Your task to perform on an android device: open app "Microsoft Excel" Image 0: 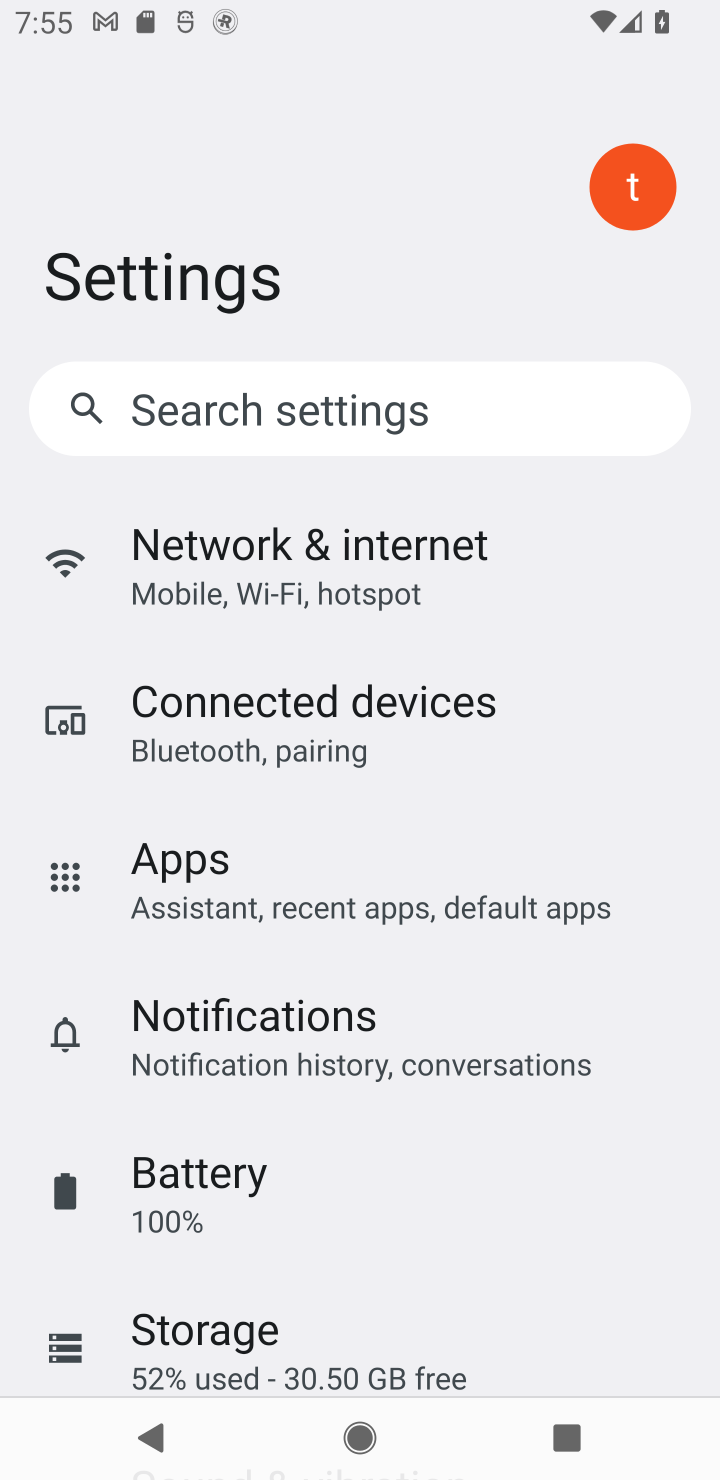
Step 0: press home button
Your task to perform on an android device: open app "Microsoft Excel" Image 1: 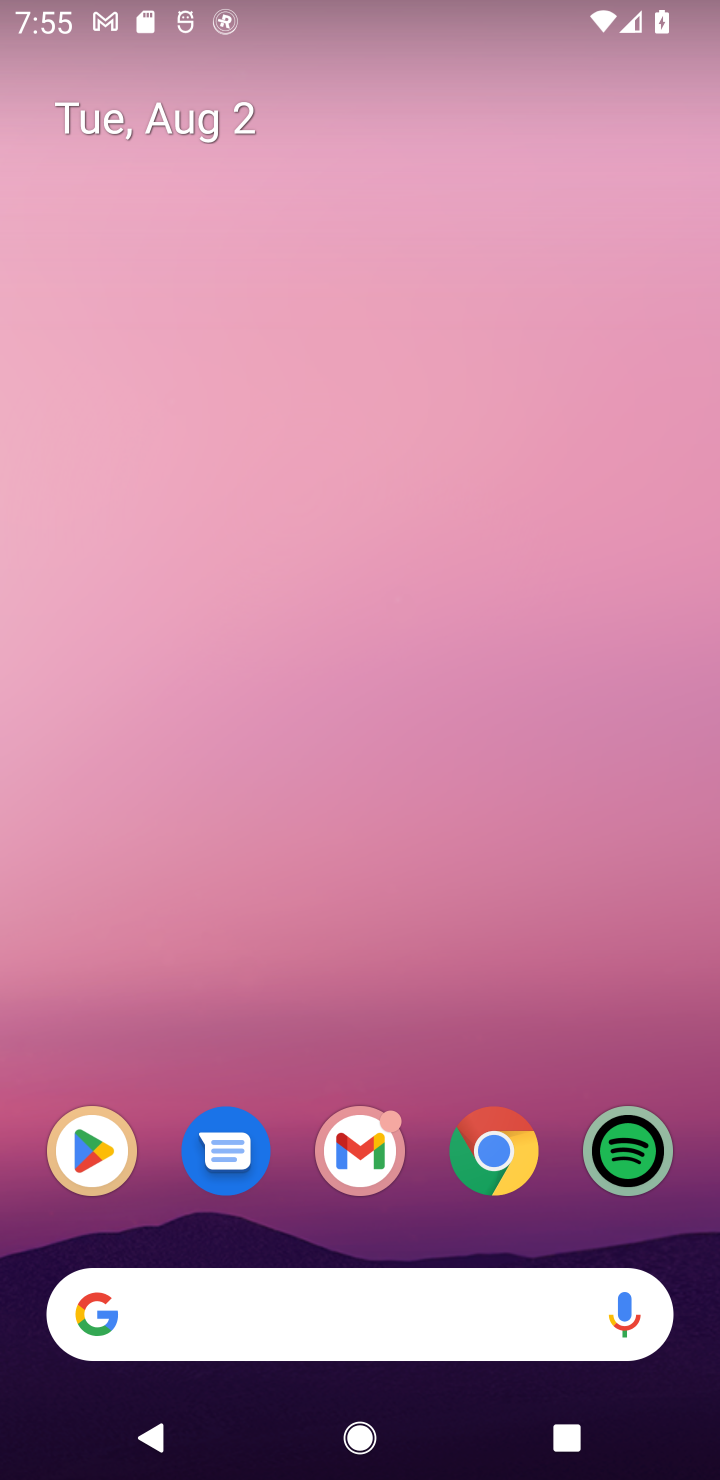
Step 1: click (120, 1121)
Your task to perform on an android device: open app "Microsoft Excel" Image 2: 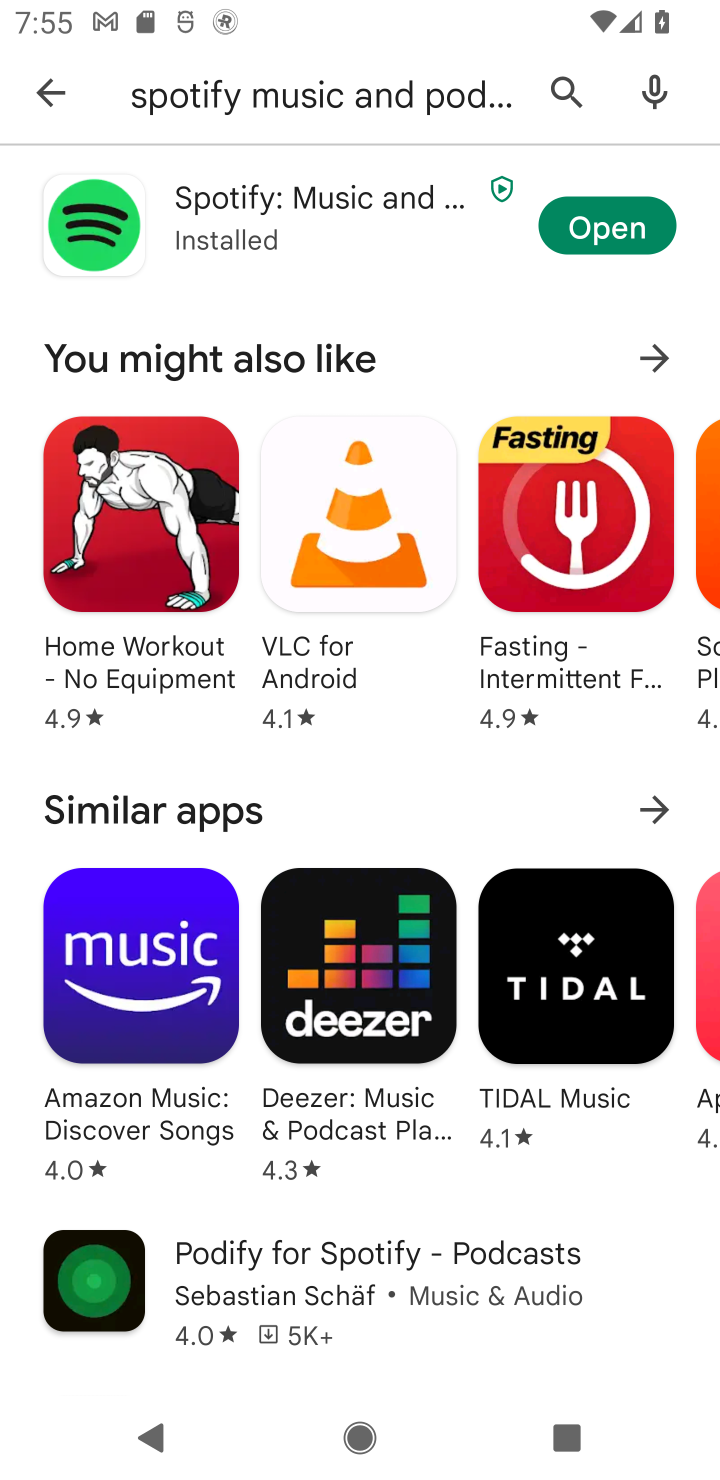
Step 2: click (577, 103)
Your task to perform on an android device: open app "Microsoft Excel" Image 3: 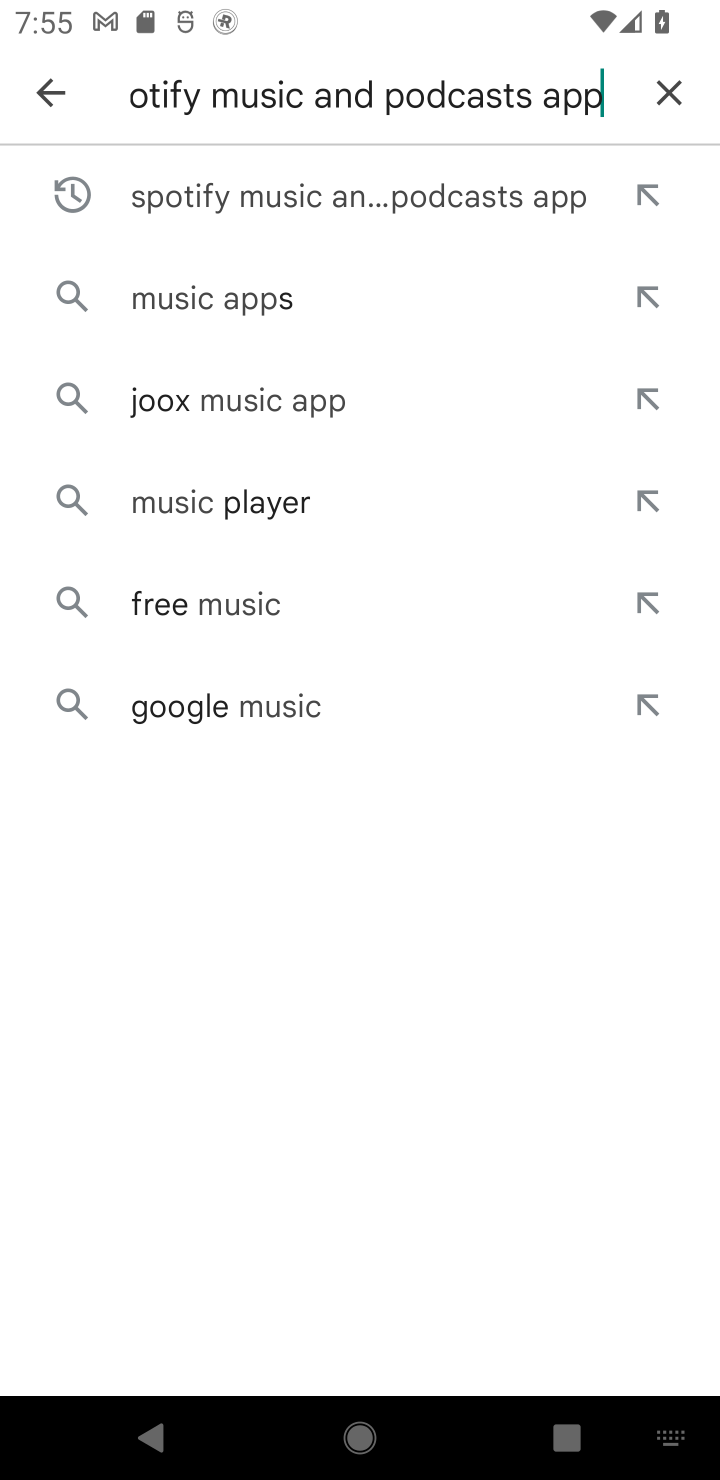
Step 3: click (653, 75)
Your task to perform on an android device: open app "Microsoft Excel" Image 4: 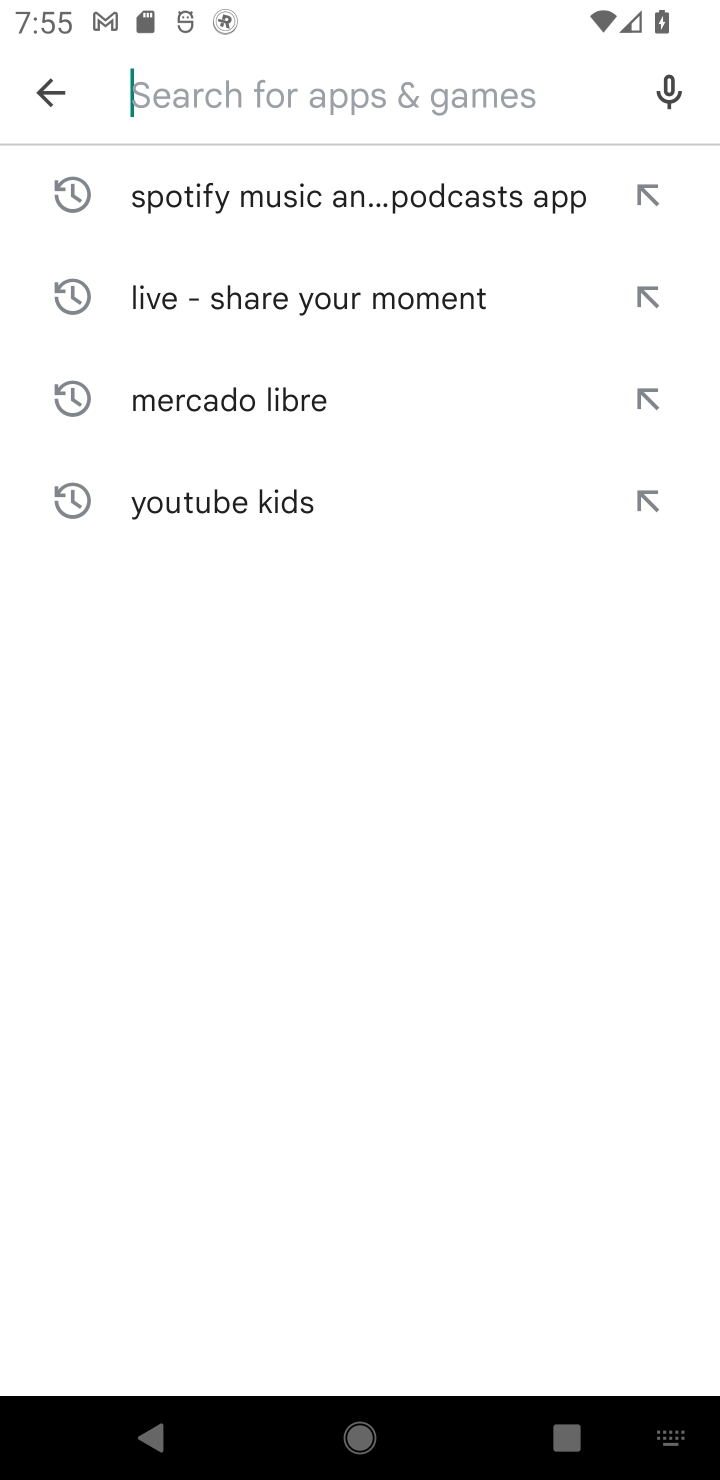
Step 4: type "Microsoft Excel"
Your task to perform on an android device: open app "Microsoft Excel" Image 5: 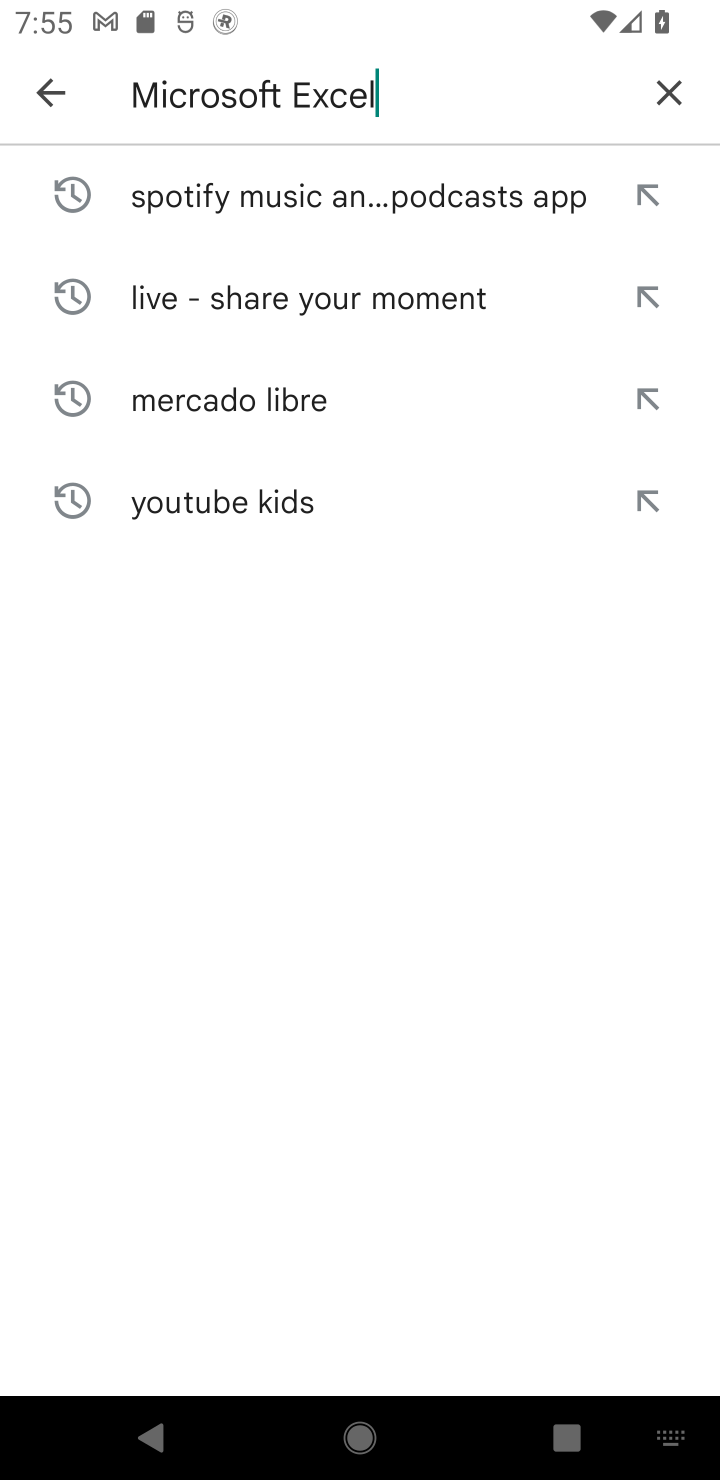
Step 5: type ""
Your task to perform on an android device: open app "Microsoft Excel" Image 6: 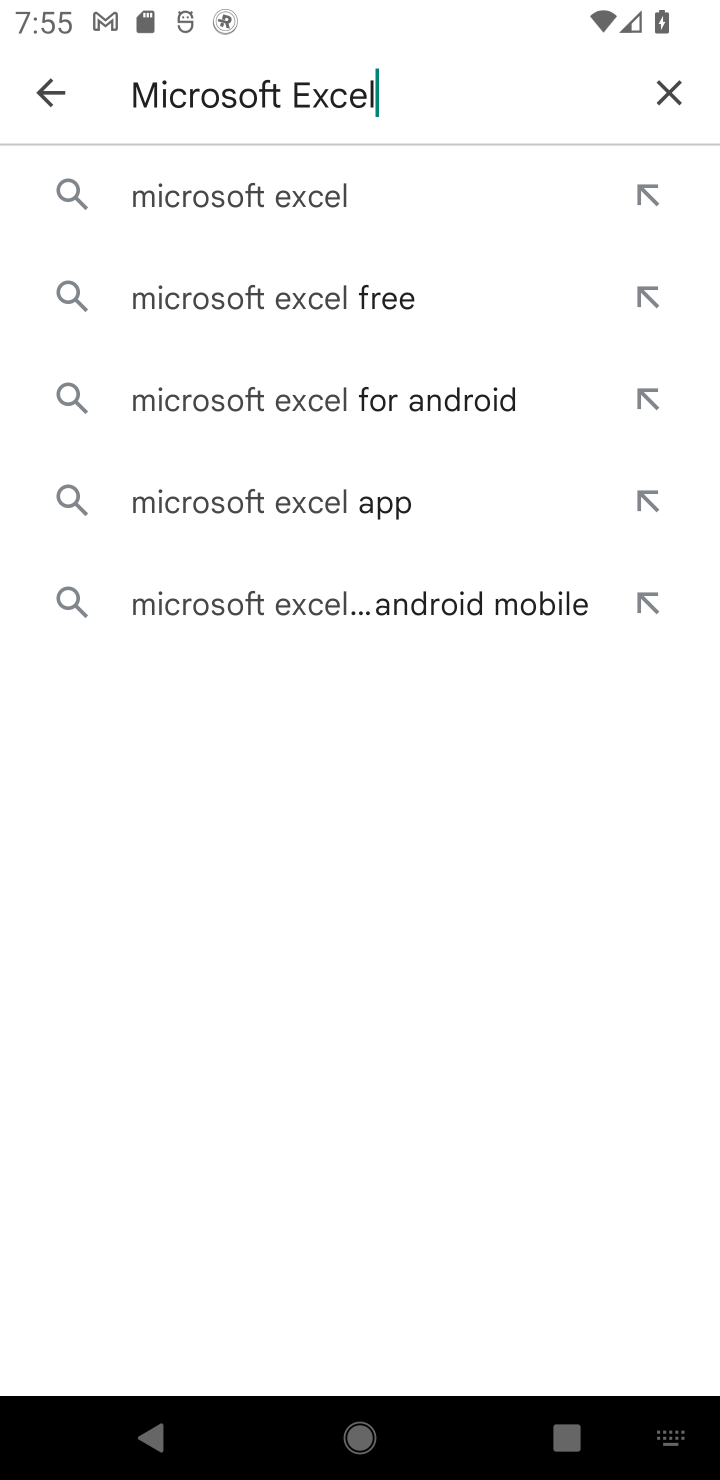
Step 6: click (368, 180)
Your task to perform on an android device: open app "Microsoft Excel" Image 7: 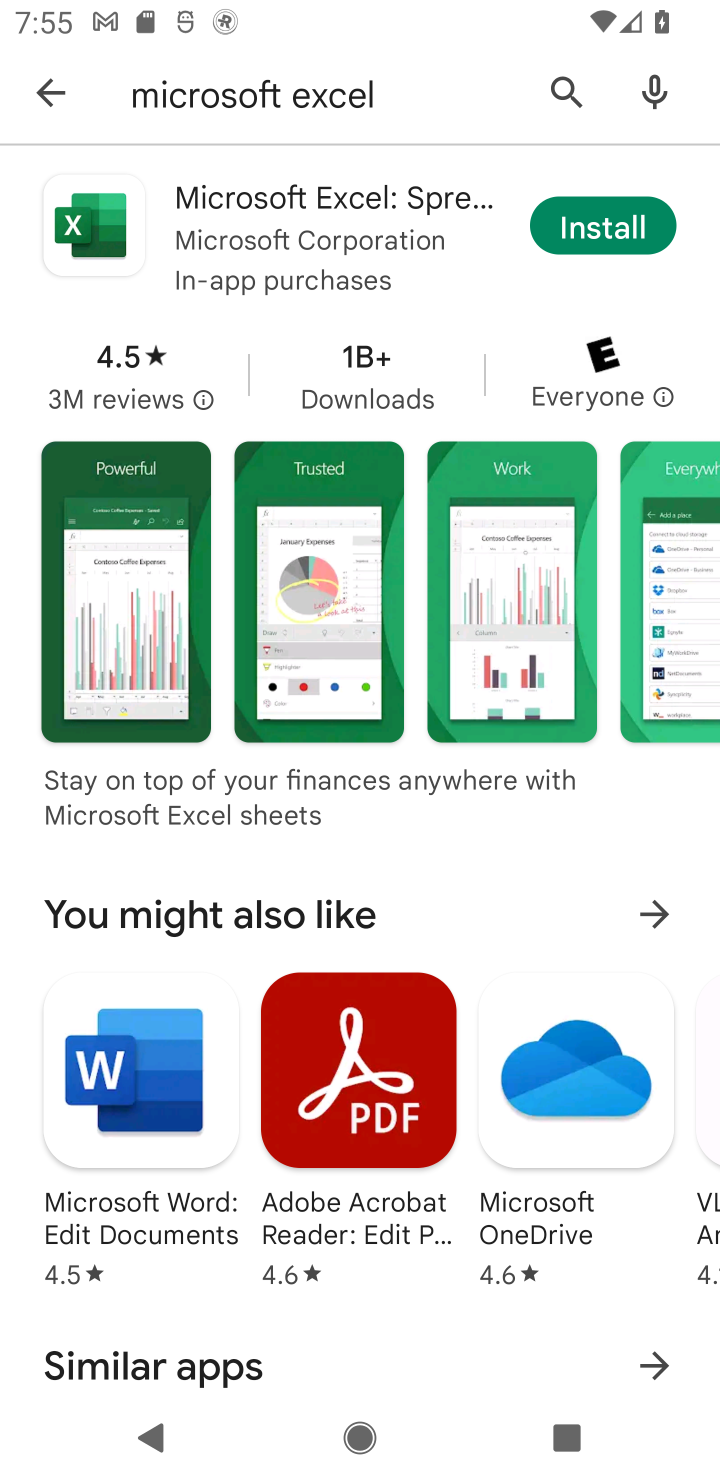
Step 7: task complete